Your task to perform on an android device: search for starred emails in the gmail app Image 0: 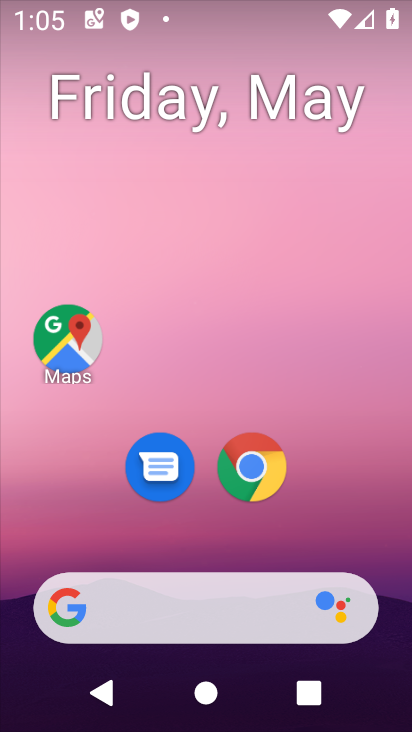
Step 0: drag from (366, 480) to (352, 75)
Your task to perform on an android device: search for starred emails in the gmail app Image 1: 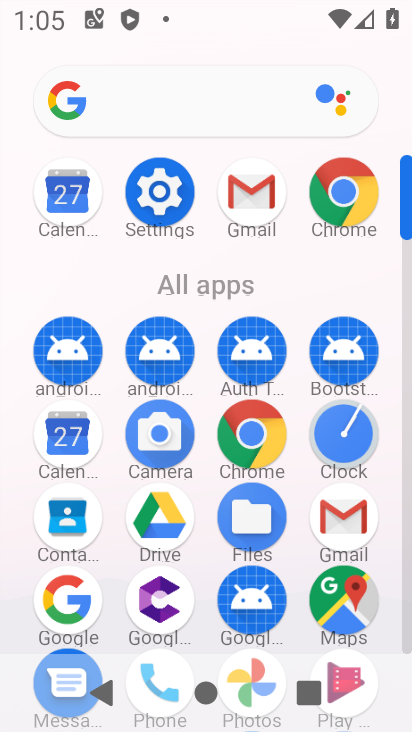
Step 1: click (248, 205)
Your task to perform on an android device: search for starred emails in the gmail app Image 2: 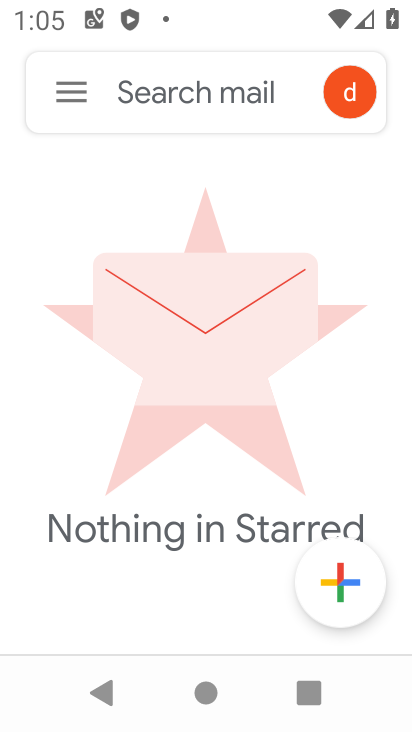
Step 2: task complete